Your task to perform on an android device: open wifi settings Image 0: 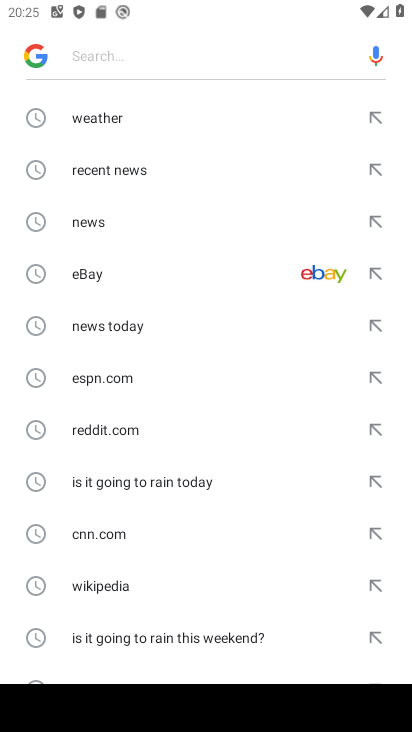
Step 0: press home button
Your task to perform on an android device: open wifi settings Image 1: 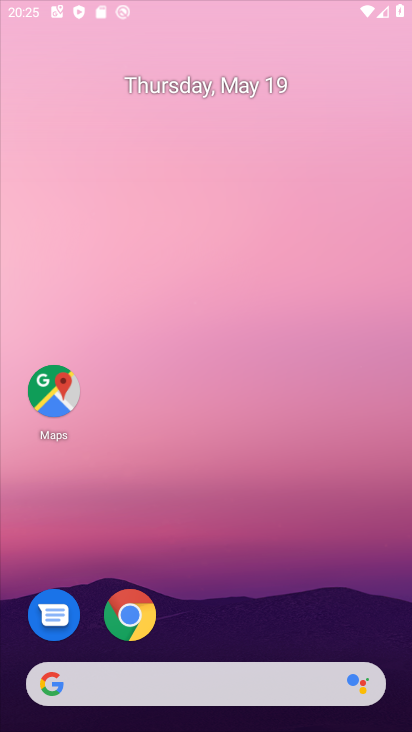
Step 1: drag from (243, 553) to (282, 97)
Your task to perform on an android device: open wifi settings Image 2: 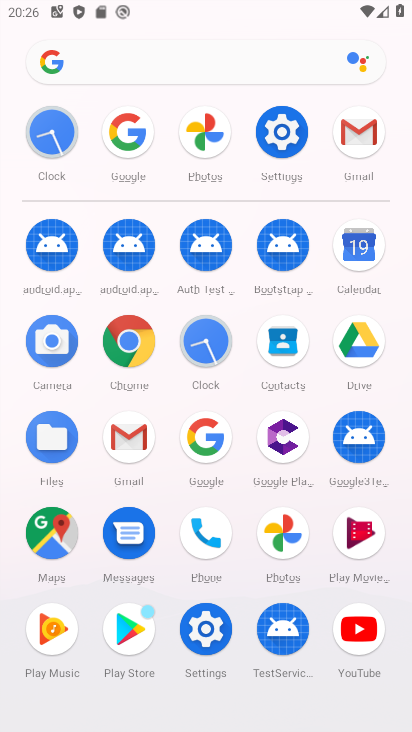
Step 2: click (285, 123)
Your task to perform on an android device: open wifi settings Image 3: 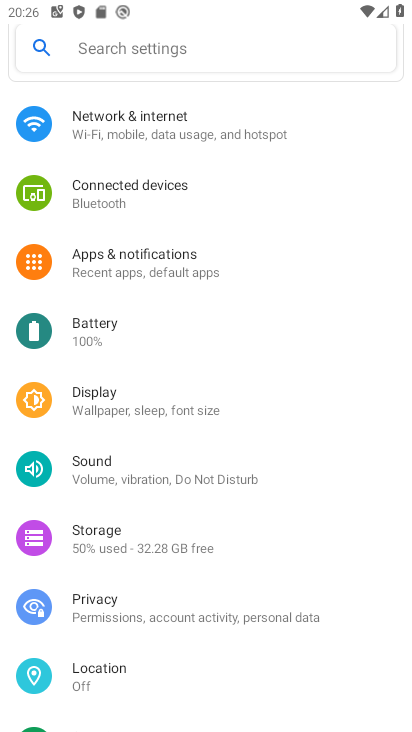
Step 3: click (147, 134)
Your task to perform on an android device: open wifi settings Image 4: 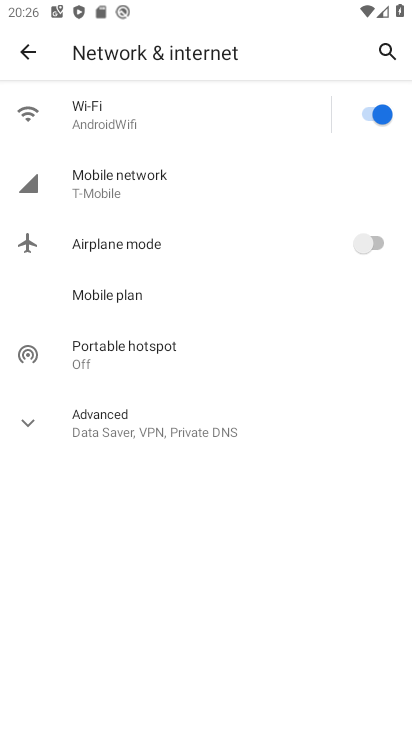
Step 4: click (173, 122)
Your task to perform on an android device: open wifi settings Image 5: 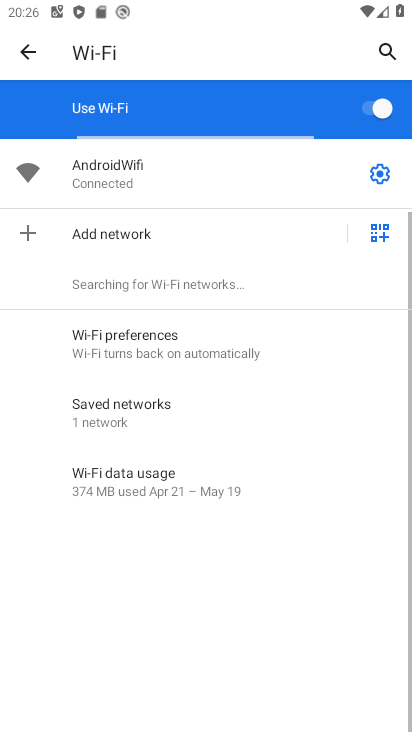
Step 5: click (372, 176)
Your task to perform on an android device: open wifi settings Image 6: 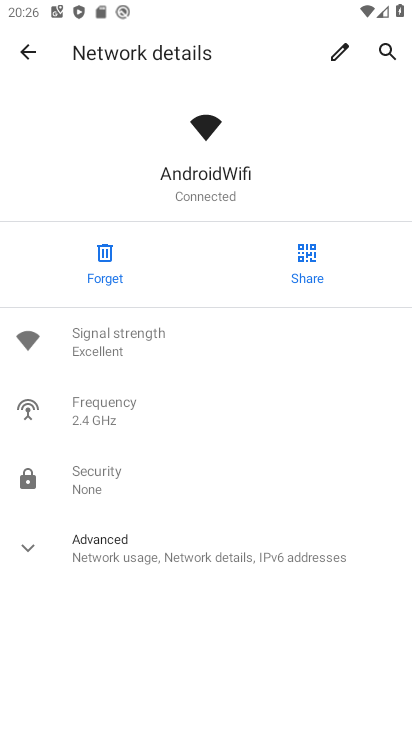
Step 6: task complete